Your task to perform on an android device: see tabs open on other devices in the chrome app Image 0: 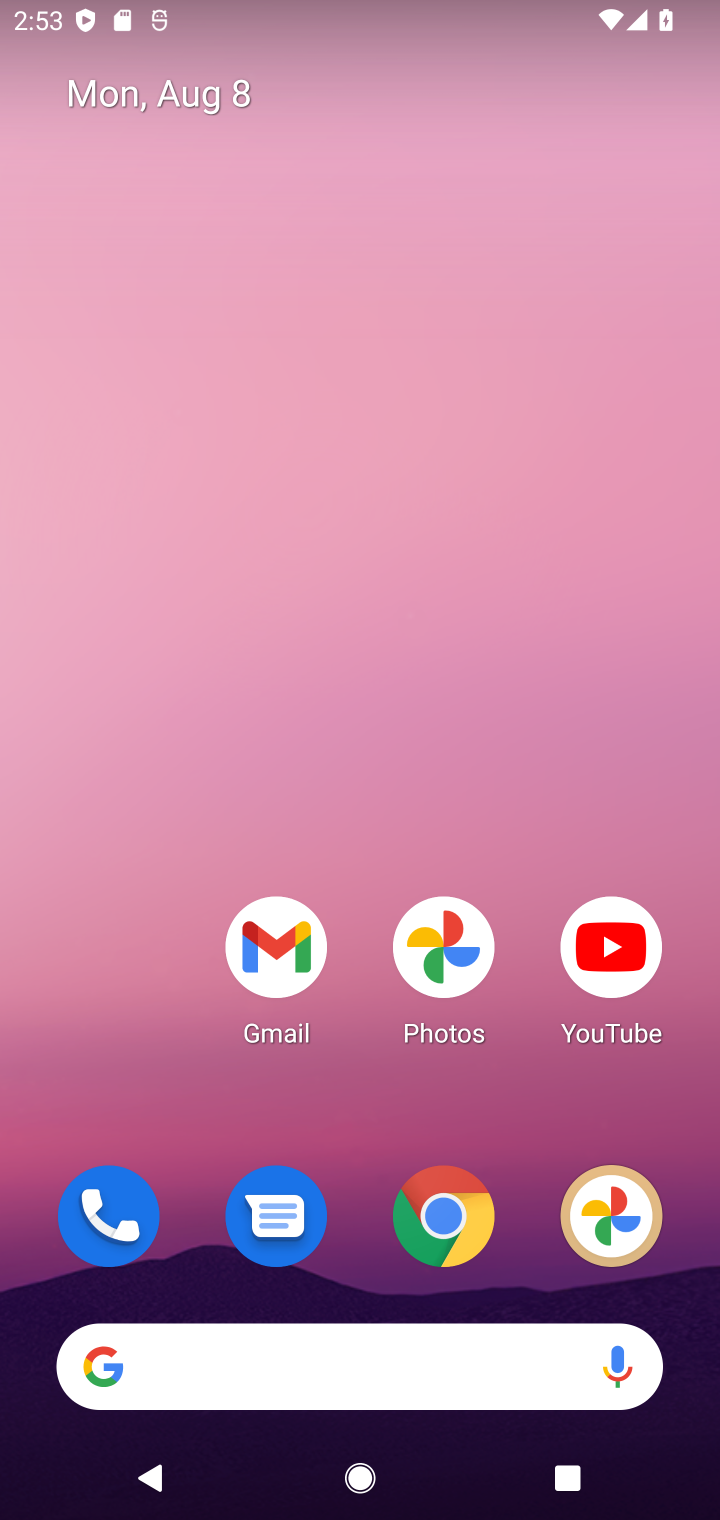
Step 0: drag from (531, 884) to (420, 7)
Your task to perform on an android device: see tabs open on other devices in the chrome app Image 1: 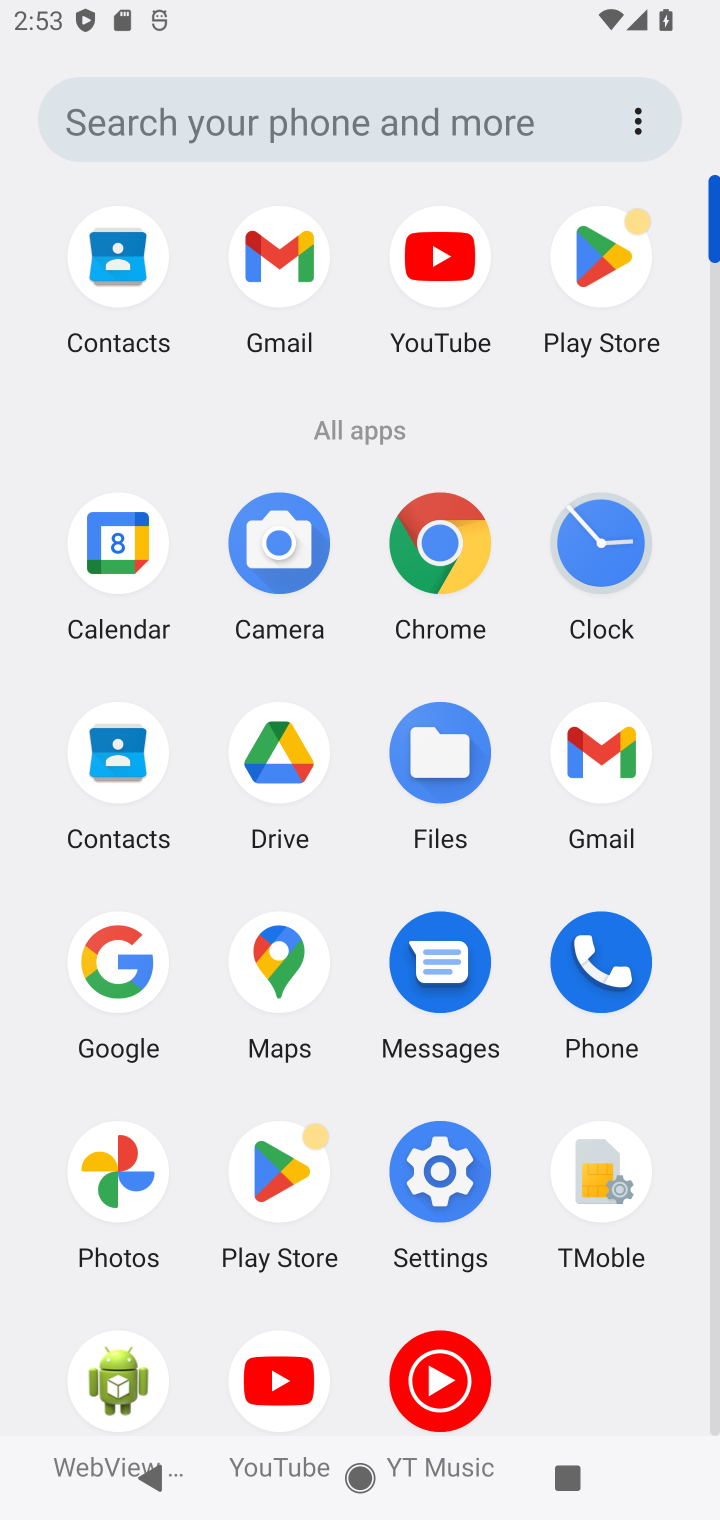
Step 1: click (423, 572)
Your task to perform on an android device: see tabs open on other devices in the chrome app Image 2: 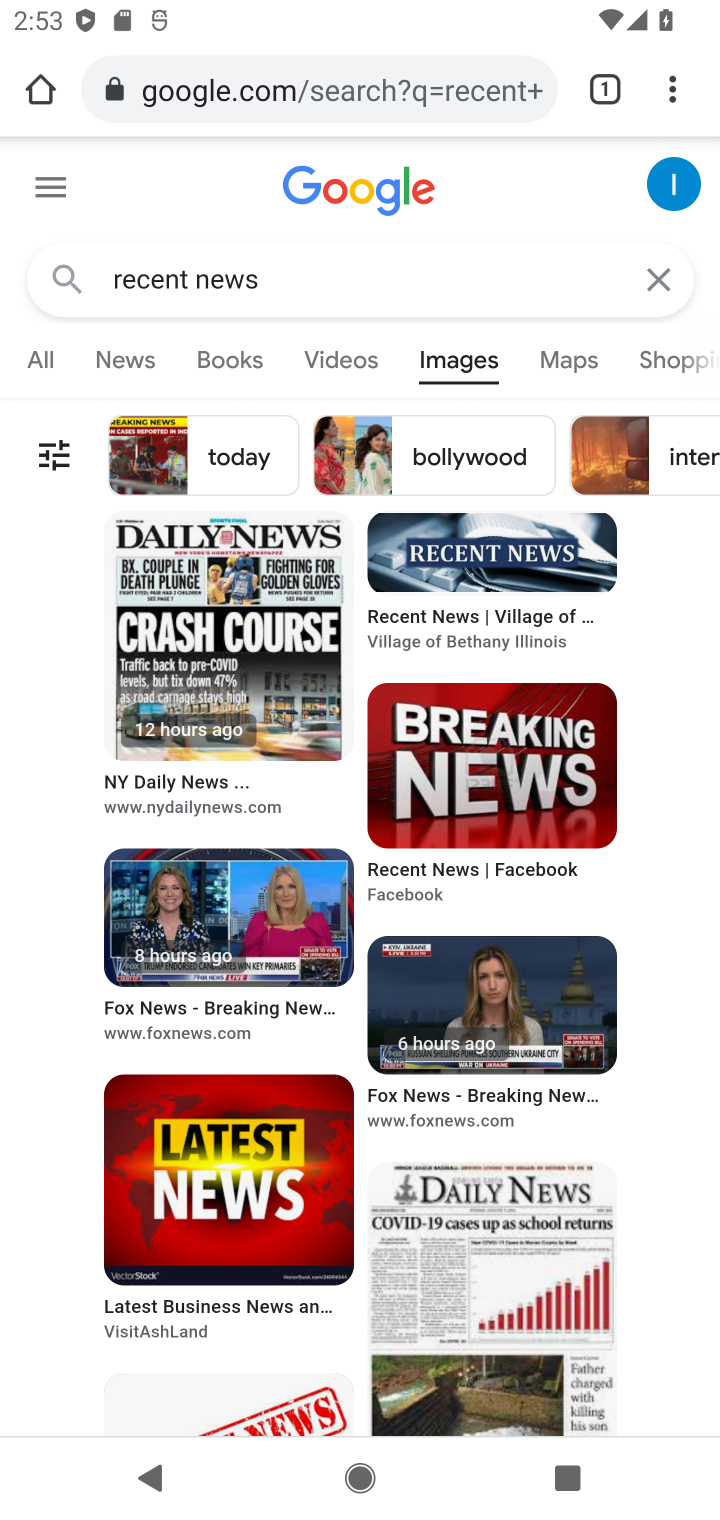
Step 2: click (679, 105)
Your task to perform on an android device: see tabs open on other devices in the chrome app Image 3: 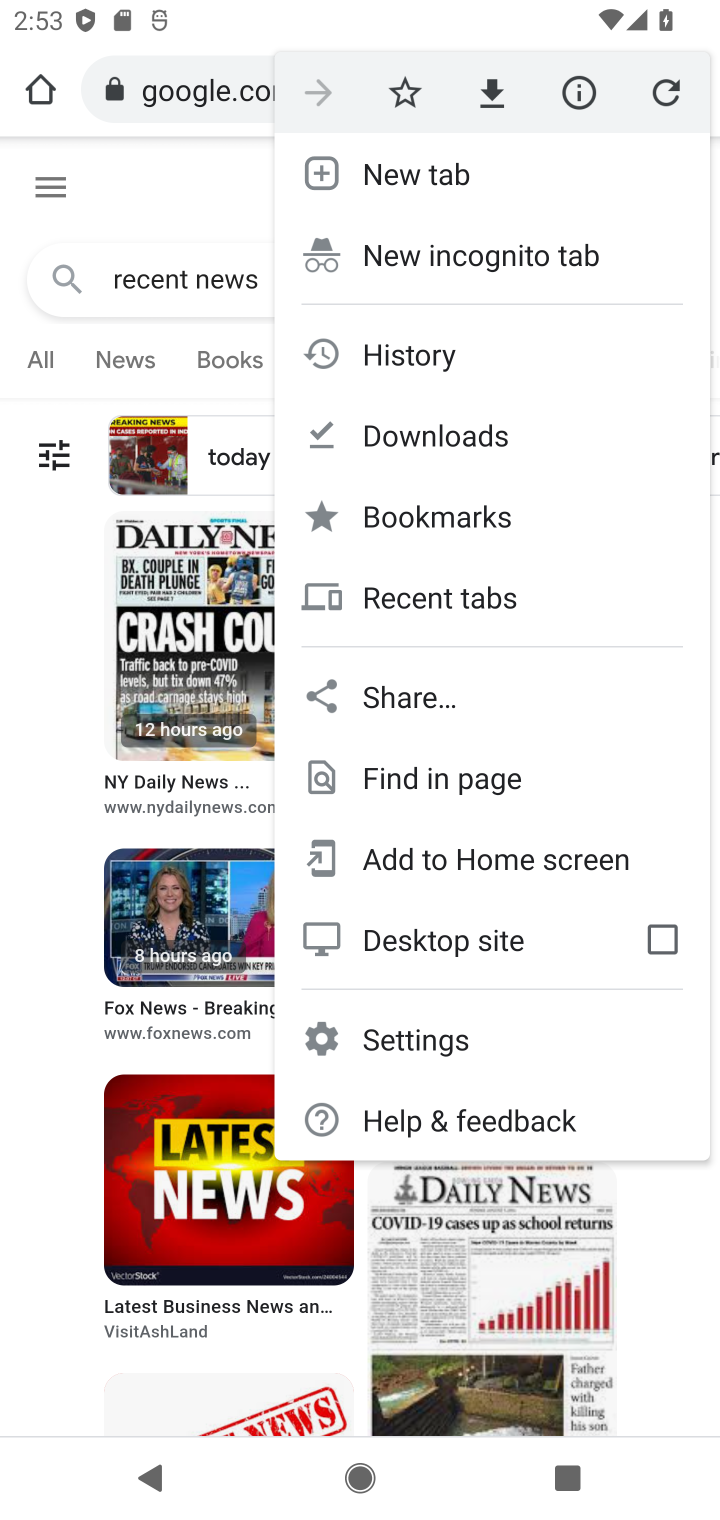
Step 3: click (502, 580)
Your task to perform on an android device: see tabs open on other devices in the chrome app Image 4: 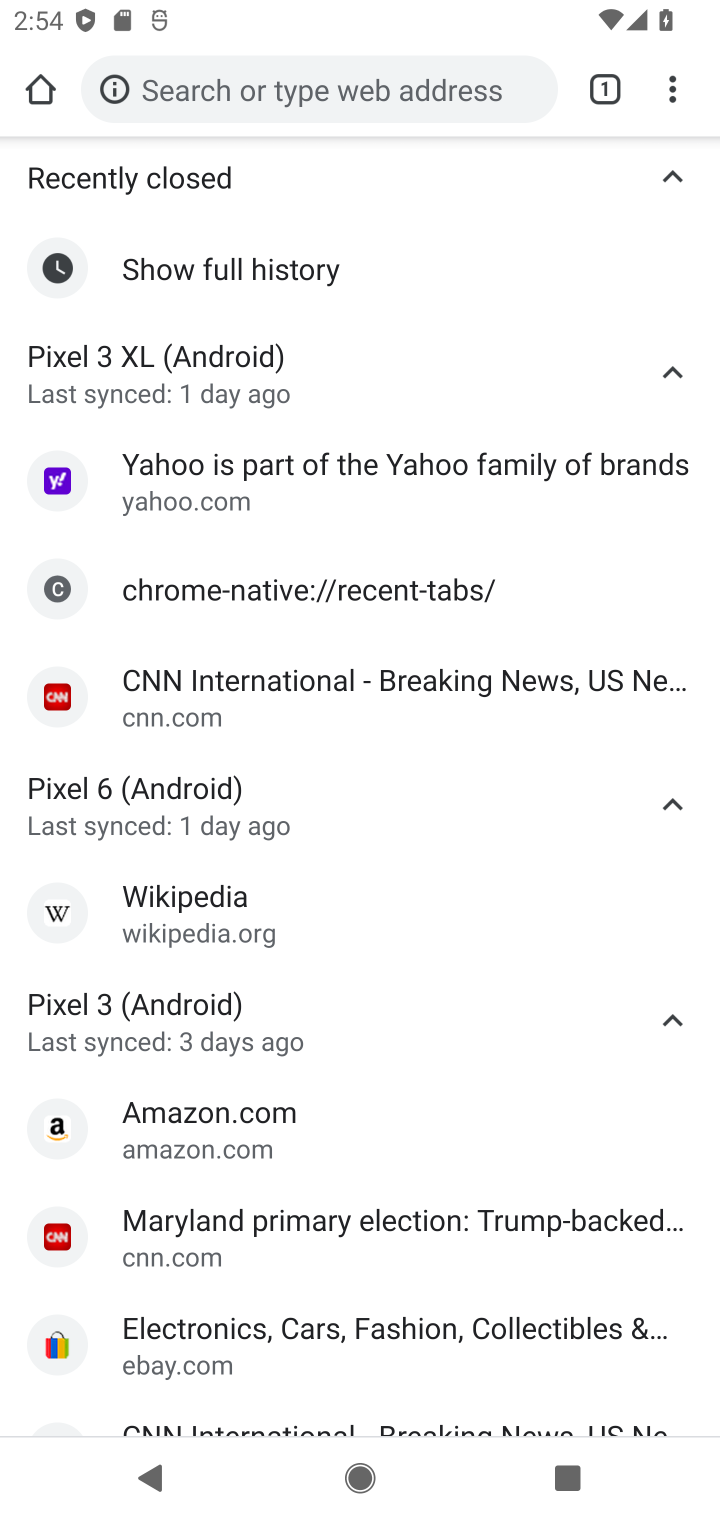
Step 4: task complete